Your task to perform on an android device: Go to settings Image 0: 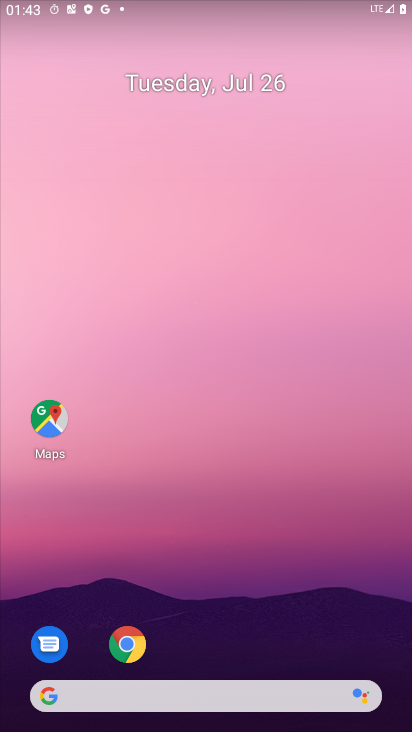
Step 0: drag from (220, 627) to (192, 45)
Your task to perform on an android device: Go to settings Image 1: 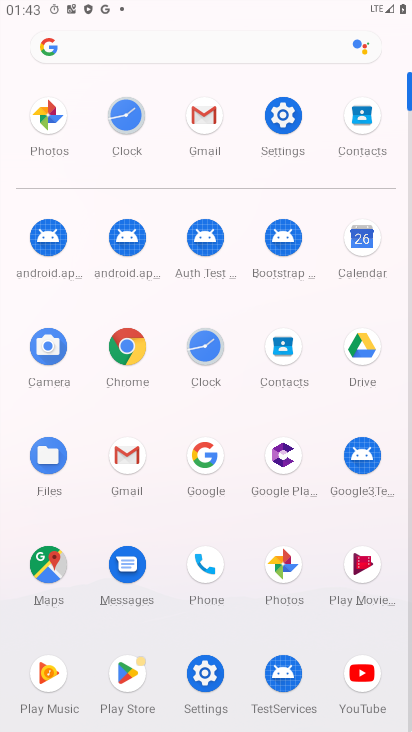
Step 1: click (282, 124)
Your task to perform on an android device: Go to settings Image 2: 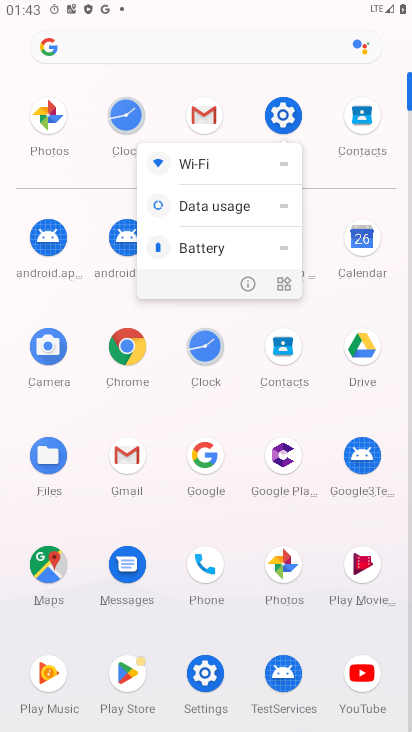
Step 2: click (283, 121)
Your task to perform on an android device: Go to settings Image 3: 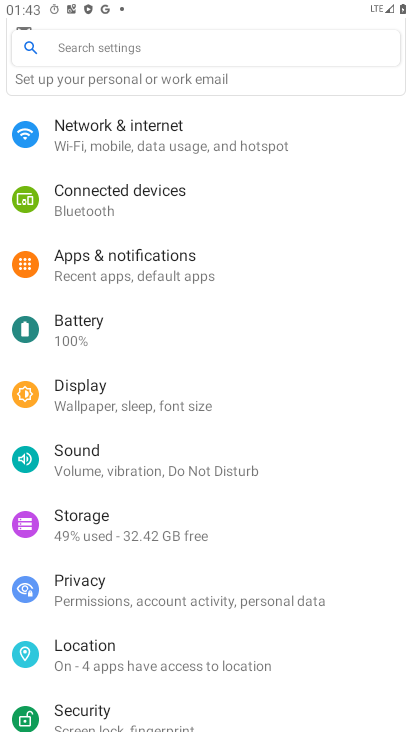
Step 3: task complete